Your task to perform on an android device: see sites visited before in the chrome app Image 0: 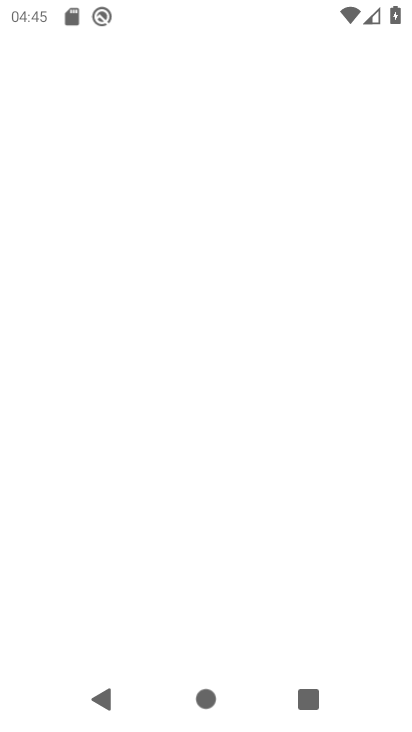
Step 0: click (239, 517)
Your task to perform on an android device: see sites visited before in the chrome app Image 1: 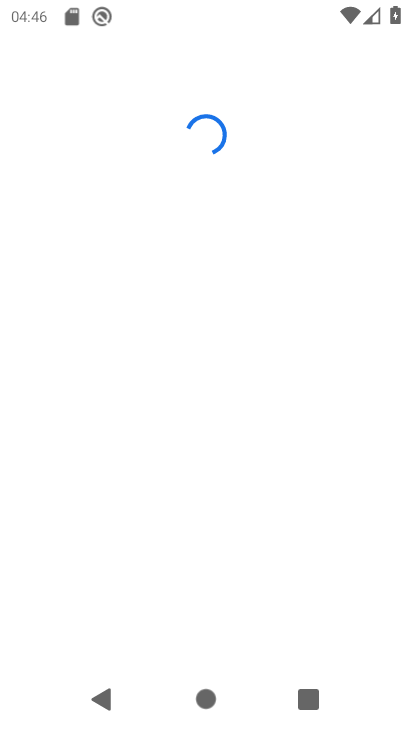
Step 1: press home button
Your task to perform on an android device: see sites visited before in the chrome app Image 2: 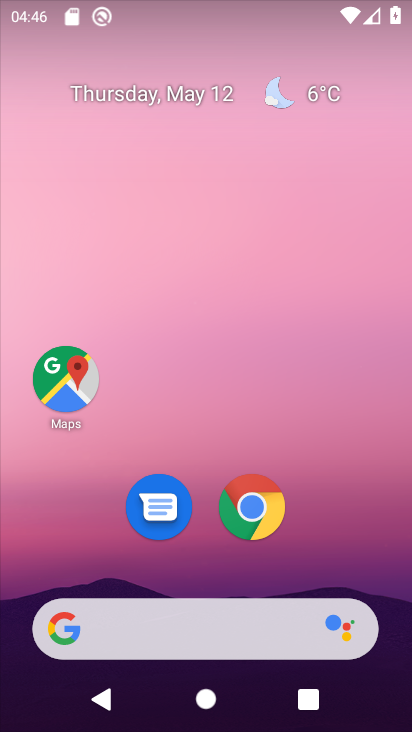
Step 2: click (258, 508)
Your task to perform on an android device: see sites visited before in the chrome app Image 3: 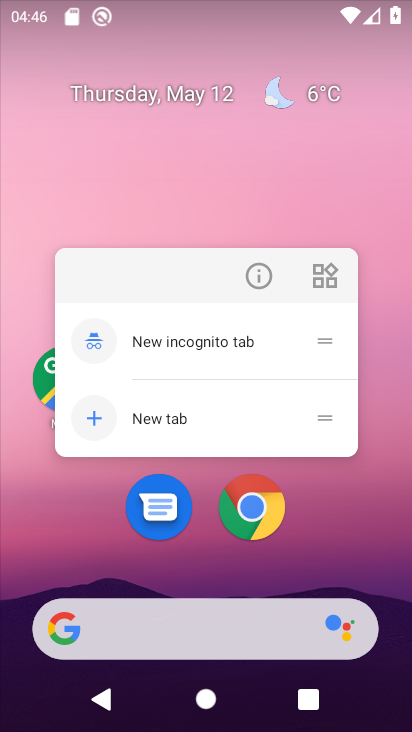
Step 3: click (260, 516)
Your task to perform on an android device: see sites visited before in the chrome app Image 4: 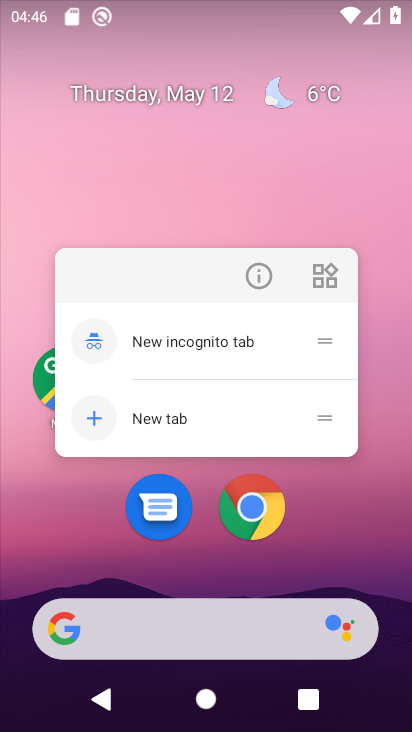
Step 4: click (252, 527)
Your task to perform on an android device: see sites visited before in the chrome app Image 5: 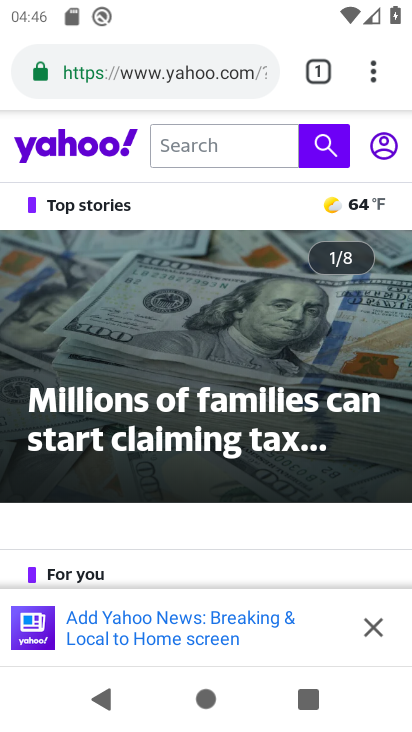
Step 5: drag from (366, 76) to (188, 333)
Your task to perform on an android device: see sites visited before in the chrome app Image 6: 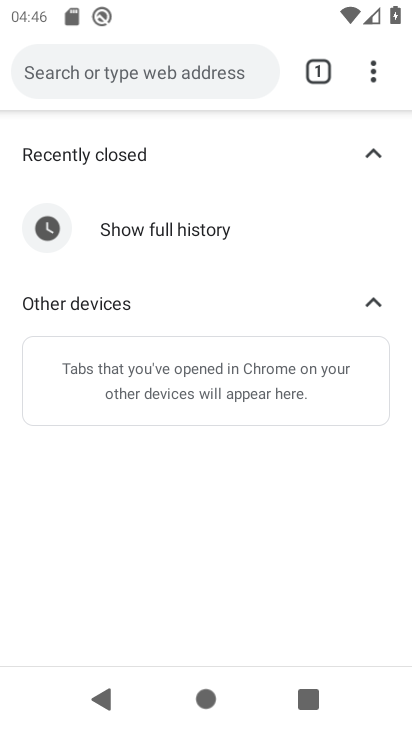
Step 6: click (149, 237)
Your task to perform on an android device: see sites visited before in the chrome app Image 7: 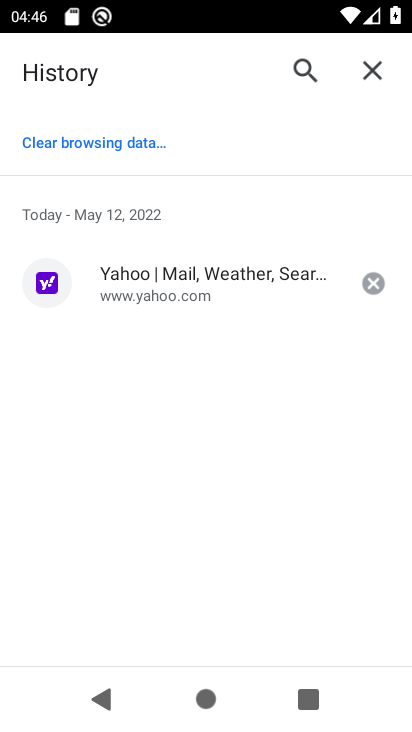
Step 7: task complete